Your task to perform on an android device: toggle data saver in the chrome app Image 0: 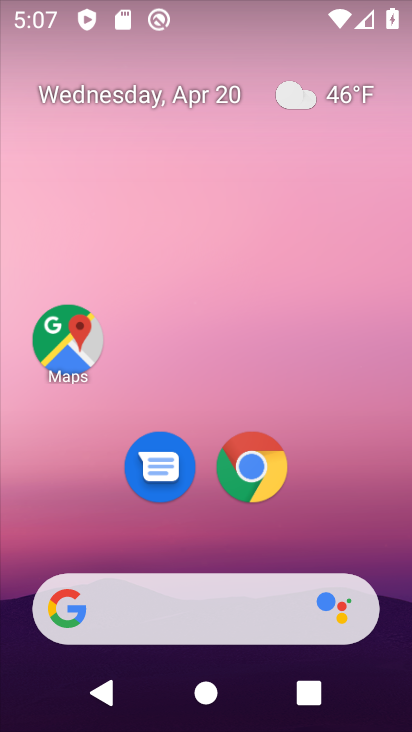
Step 0: click (270, 471)
Your task to perform on an android device: toggle data saver in the chrome app Image 1: 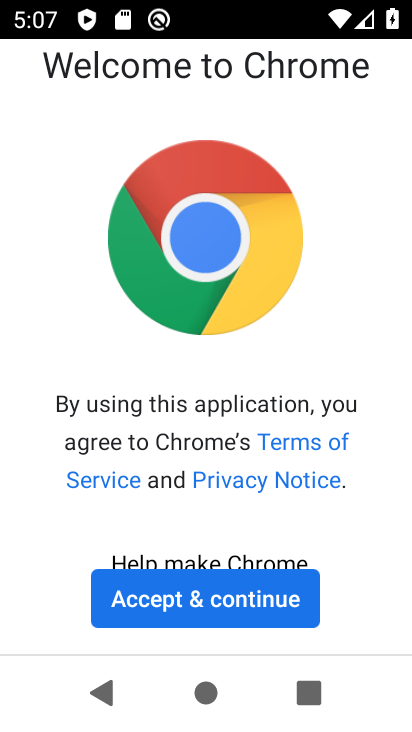
Step 1: click (228, 598)
Your task to perform on an android device: toggle data saver in the chrome app Image 2: 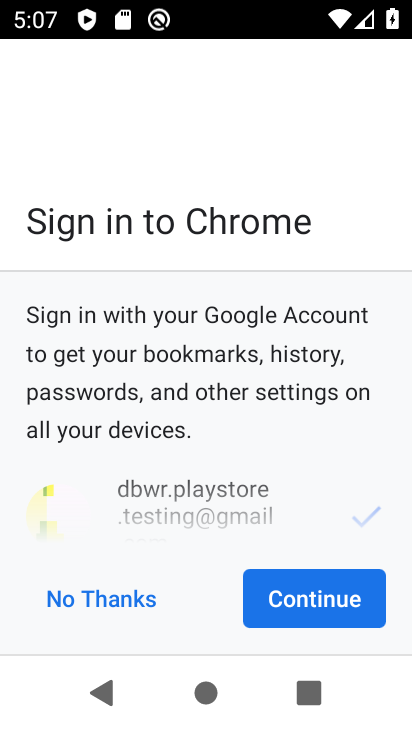
Step 2: click (294, 597)
Your task to perform on an android device: toggle data saver in the chrome app Image 3: 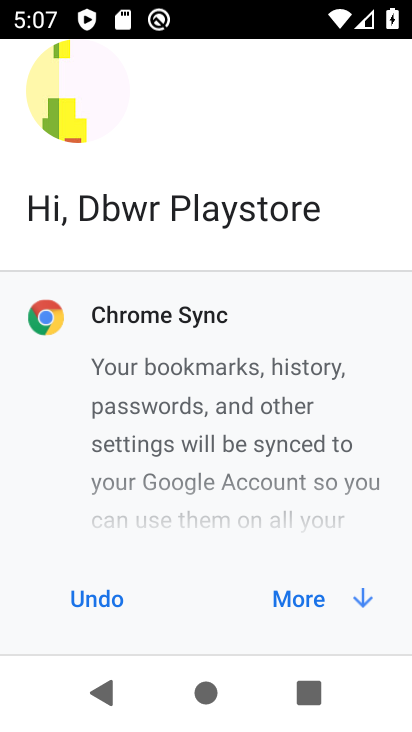
Step 3: click (293, 596)
Your task to perform on an android device: toggle data saver in the chrome app Image 4: 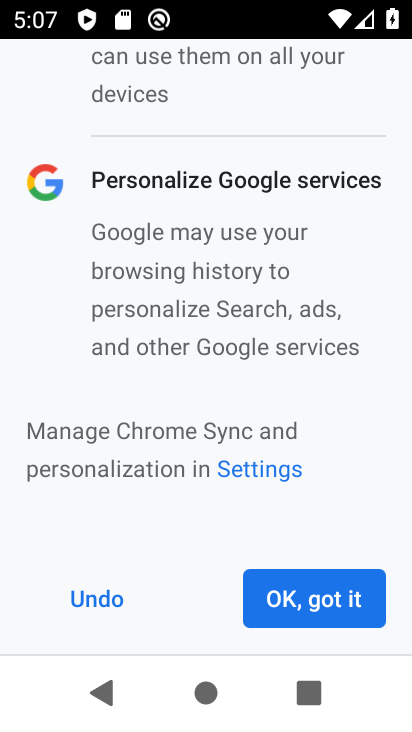
Step 4: click (293, 596)
Your task to perform on an android device: toggle data saver in the chrome app Image 5: 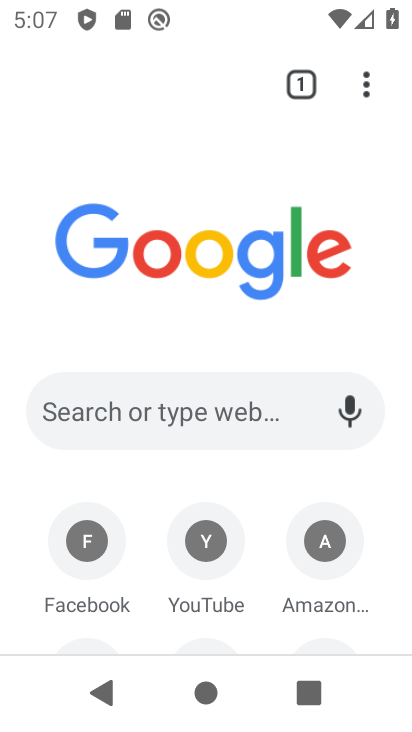
Step 5: click (374, 101)
Your task to perform on an android device: toggle data saver in the chrome app Image 6: 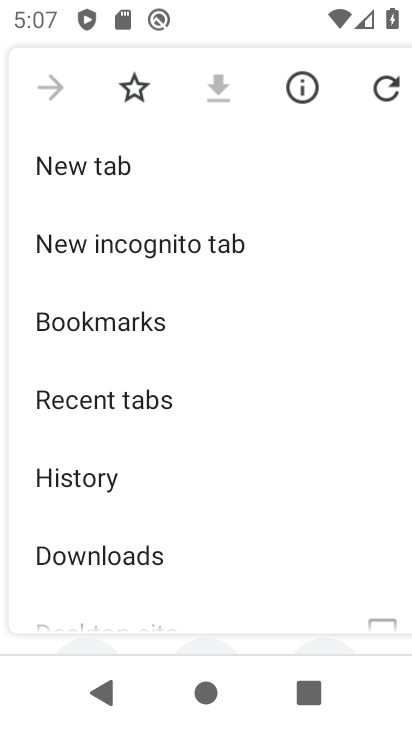
Step 6: drag from (110, 456) to (133, 127)
Your task to perform on an android device: toggle data saver in the chrome app Image 7: 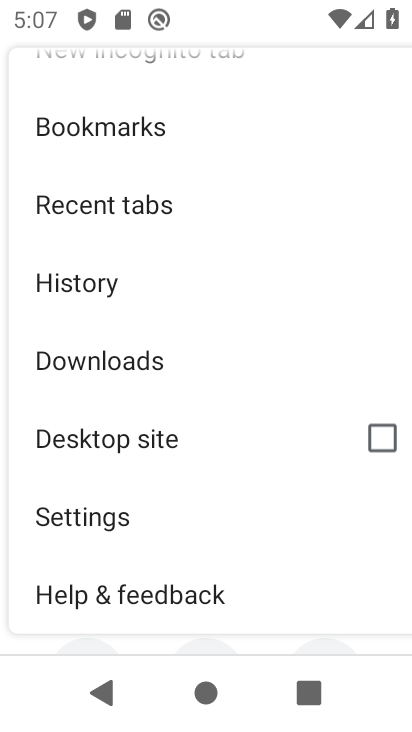
Step 7: click (96, 519)
Your task to perform on an android device: toggle data saver in the chrome app Image 8: 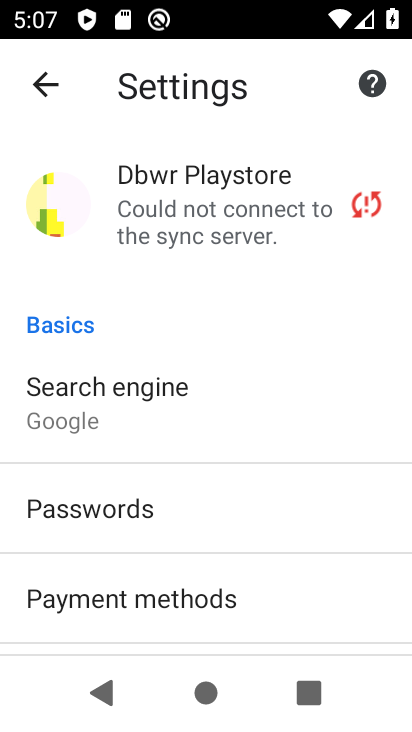
Step 8: drag from (112, 447) to (157, 211)
Your task to perform on an android device: toggle data saver in the chrome app Image 9: 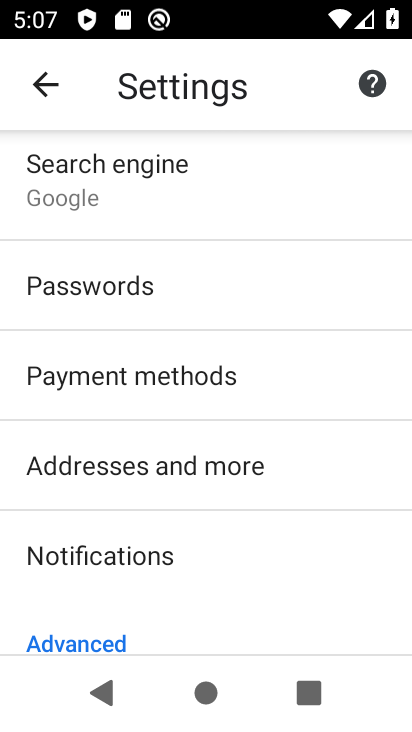
Step 9: drag from (117, 579) to (202, 114)
Your task to perform on an android device: toggle data saver in the chrome app Image 10: 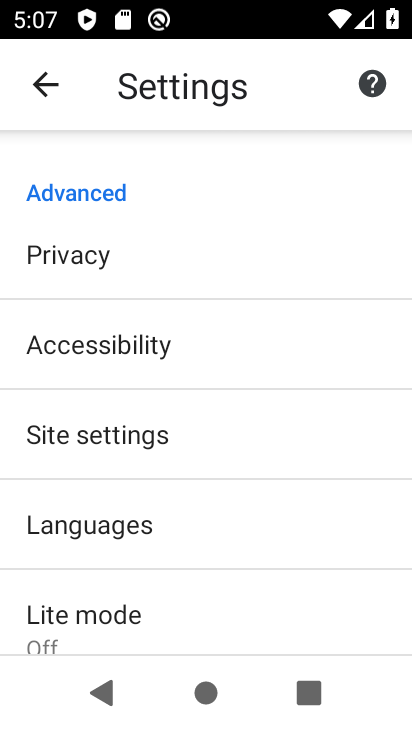
Step 10: drag from (105, 613) to (157, 424)
Your task to perform on an android device: toggle data saver in the chrome app Image 11: 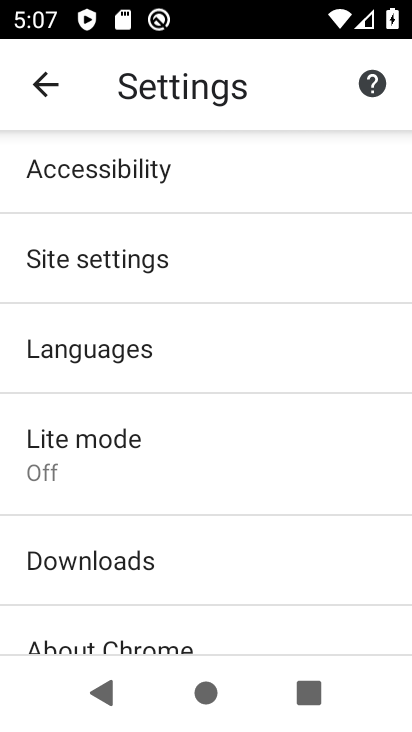
Step 11: click (104, 472)
Your task to perform on an android device: toggle data saver in the chrome app Image 12: 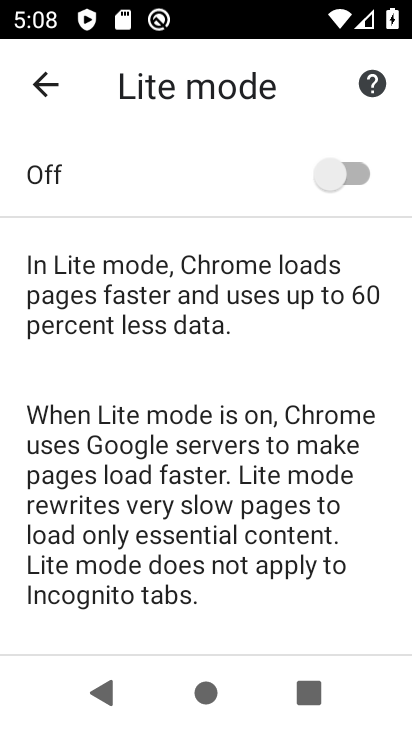
Step 12: click (339, 176)
Your task to perform on an android device: toggle data saver in the chrome app Image 13: 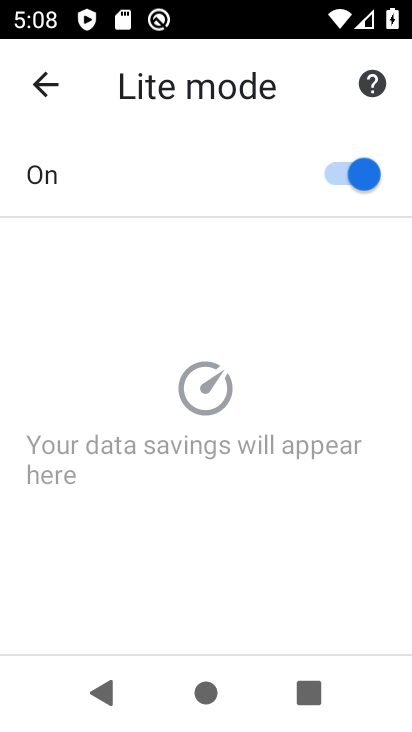
Step 13: task complete